Your task to perform on an android device: delete a single message in the gmail app Image 0: 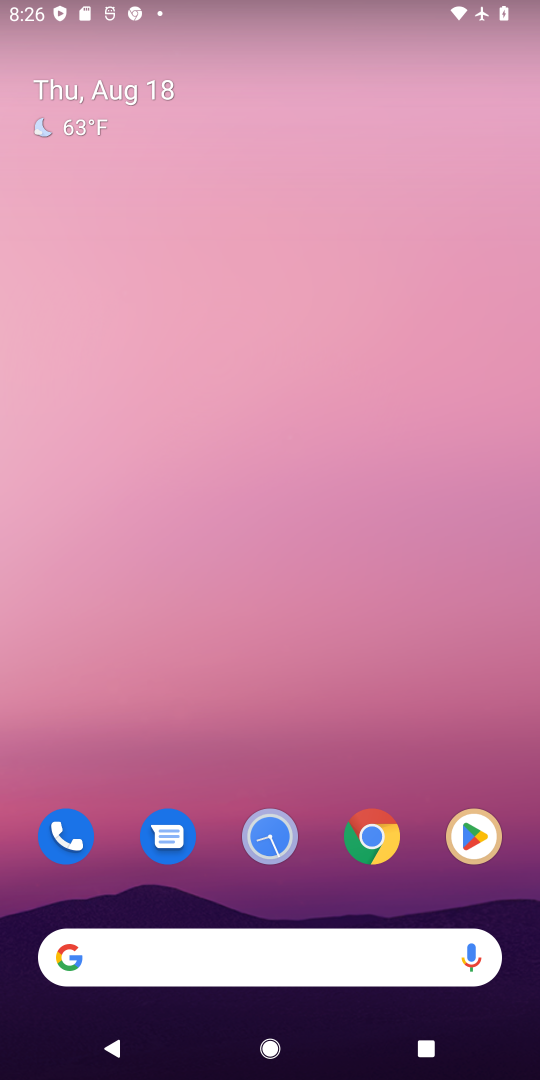
Step 0: drag from (340, 873) to (326, 155)
Your task to perform on an android device: delete a single message in the gmail app Image 1: 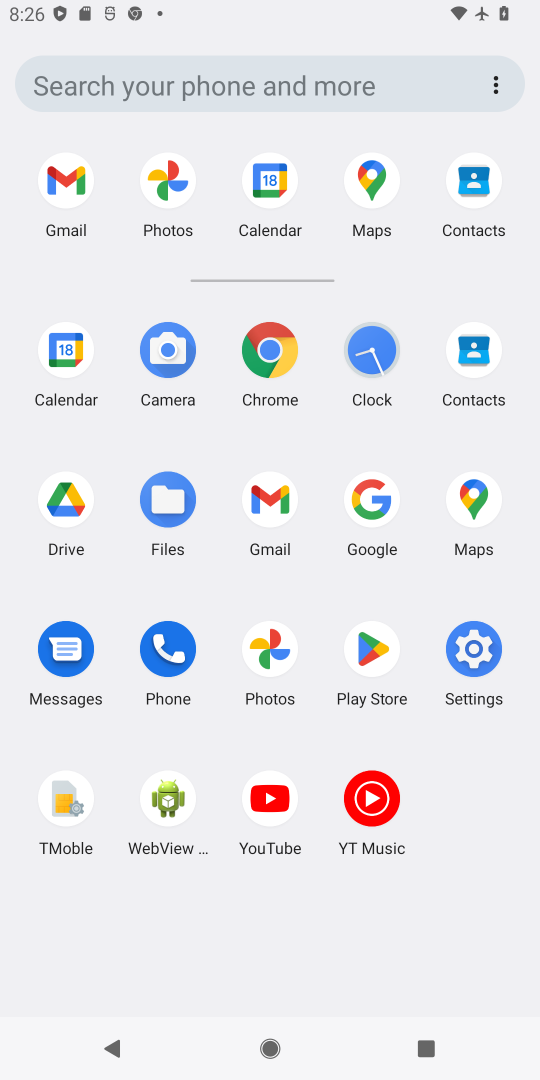
Step 1: click (268, 492)
Your task to perform on an android device: delete a single message in the gmail app Image 2: 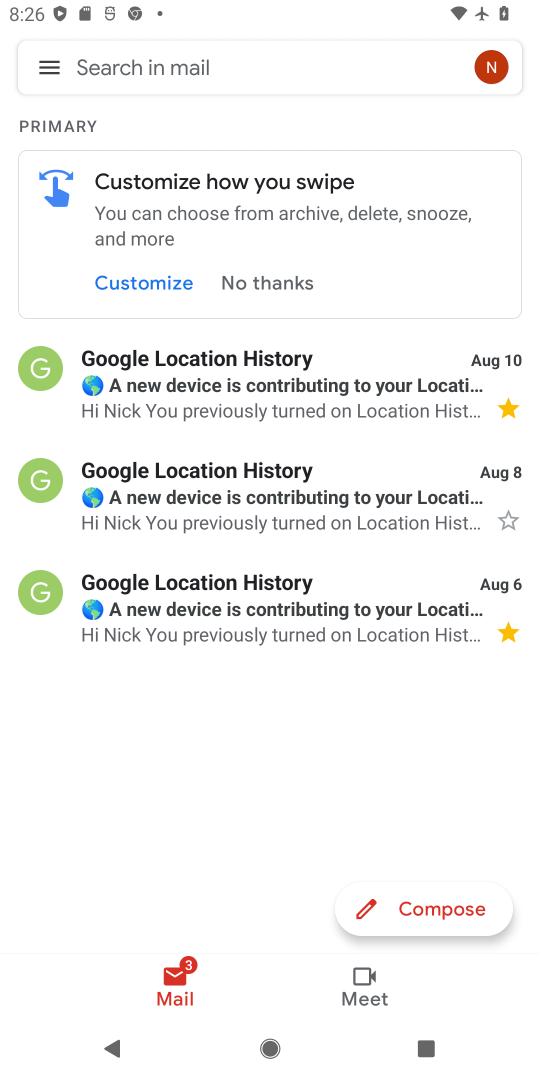
Step 2: click (182, 406)
Your task to perform on an android device: delete a single message in the gmail app Image 3: 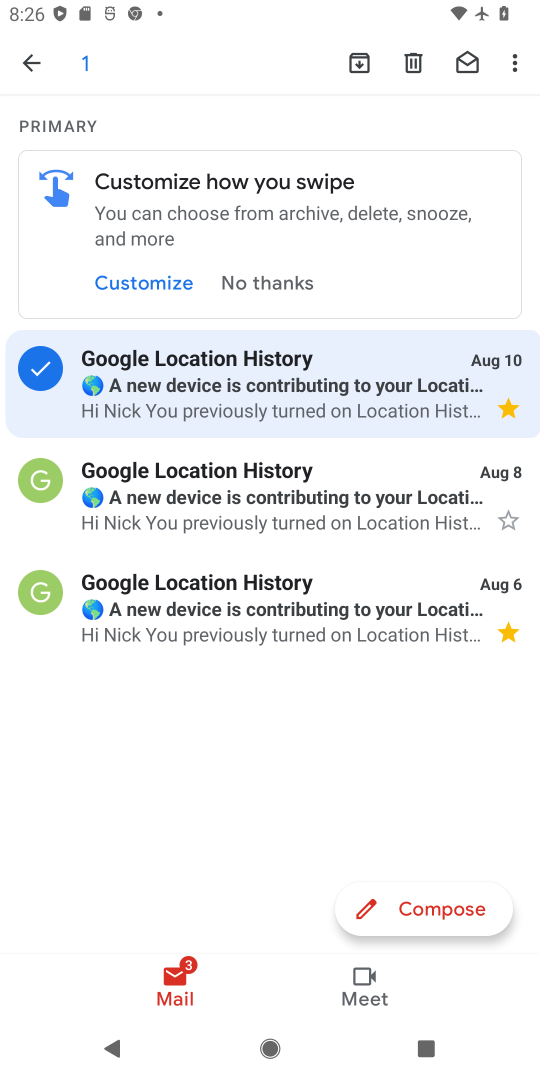
Step 3: click (414, 53)
Your task to perform on an android device: delete a single message in the gmail app Image 4: 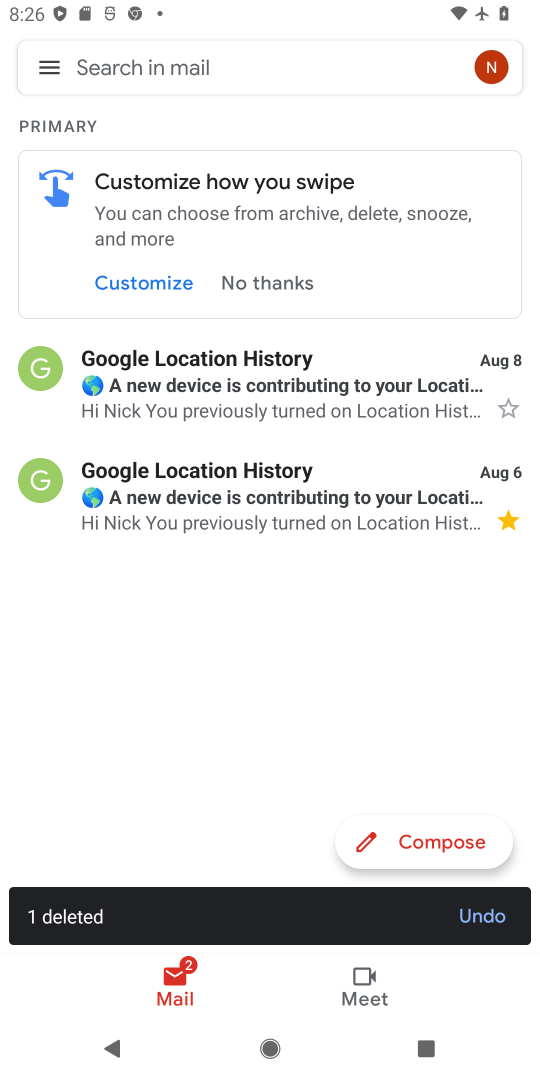
Step 4: task complete